Your task to perform on an android device: Search for pizza restaurants on Maps Image 0: 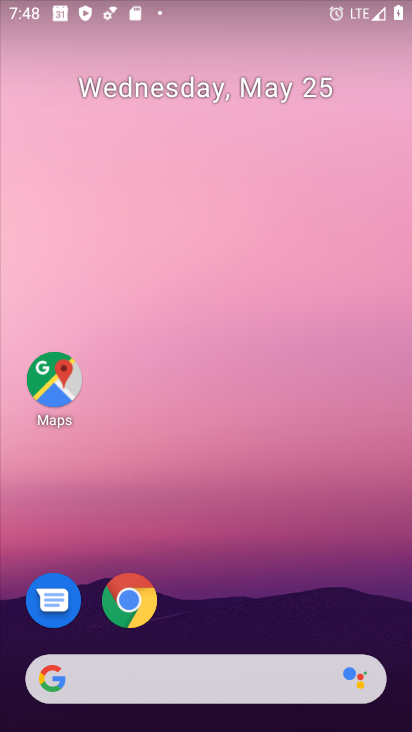
Step 0: click (46, 385)
Your task to perform on an android device: Search for pizza restaurants on Maps Image 1: 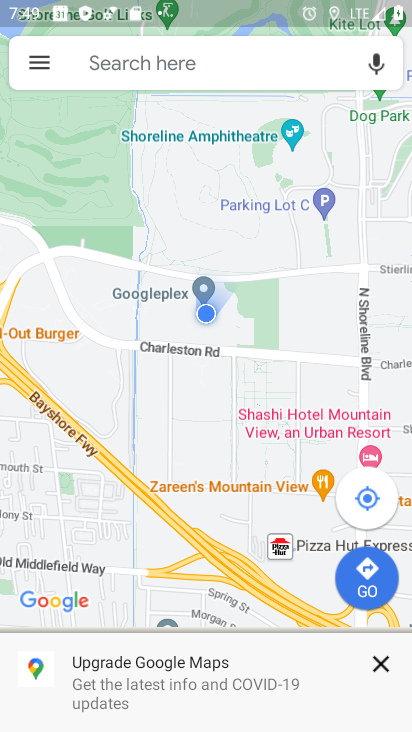
Step 1: click (204, 65)
Your task to perform on an android device: Search for pizza restaurants on Maps Image 2: 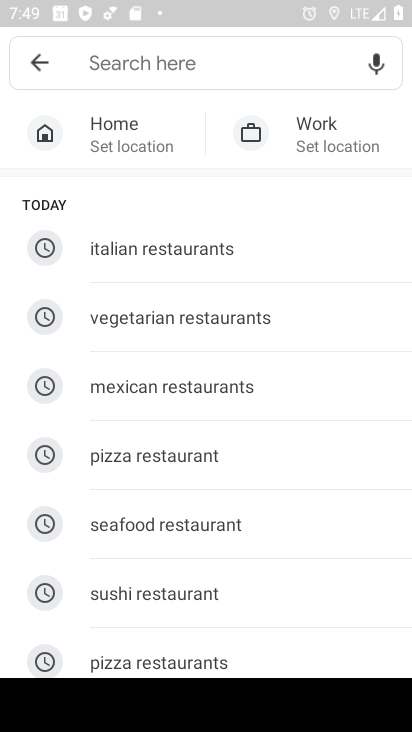
Step 2: click (165, 657)
Your task to perform on an android device: Search for pizza restaurants on Maps Image 3: 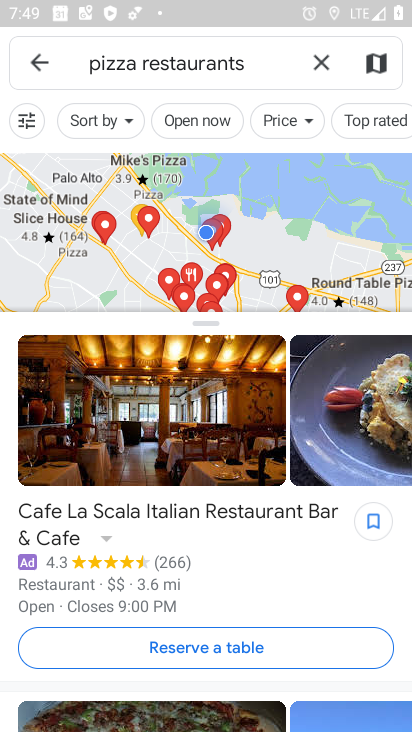
Step 3: task complete